Your task to perform on an android device: Open settings Image 0: 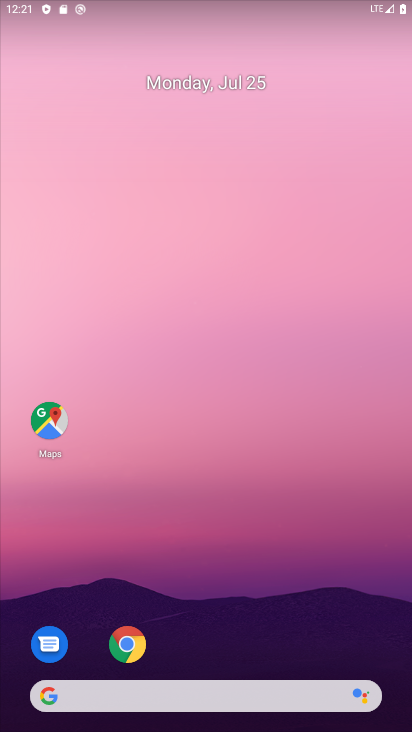
Step 0: drag from (180, 693) to (224, 243)
Your task to perform on an android device: Open settings Image 1: 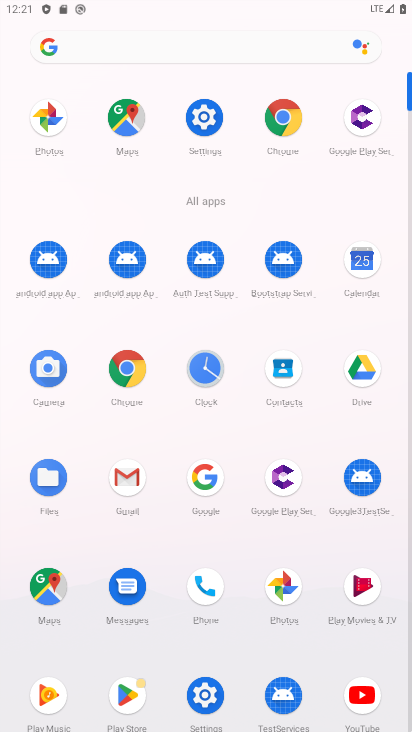
Step 1: click (204, 134)
Your task to perform on an android device: Open settings Image 2: 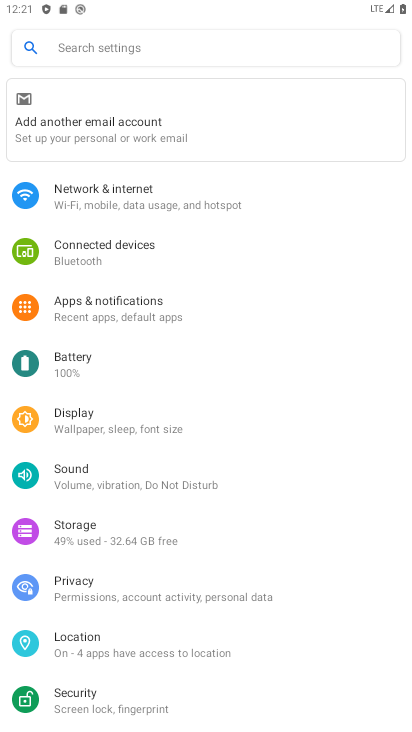
Step 2: task complete